Your task to perform on an android device: turn on airplane mode Image 0: 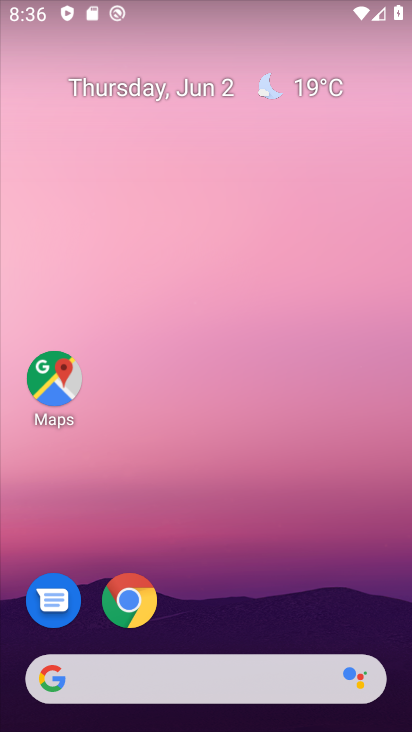
Step 0: drag from (185, 584) to (319, 66)
Your task to perform on an android device: turn on airplane mode Image 1: 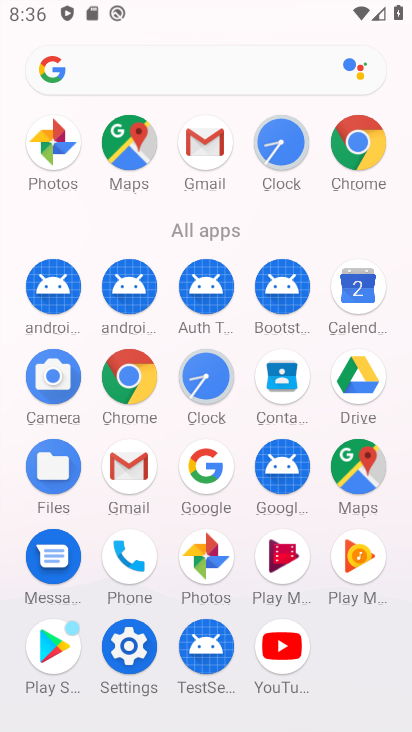
Step 1: drag from (241, 616) to (271, 431)
Your task to perform on an android device: turn on airplane mode Image 2: 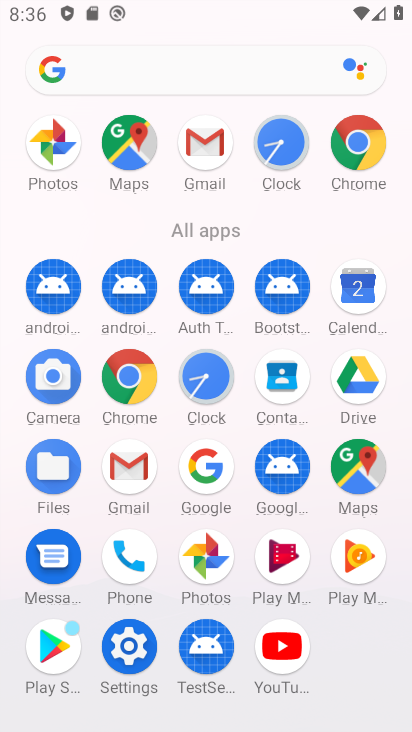
Step 2: click (133, 656)
Your task to perform on an android device: turn on airplane mode Image 3: 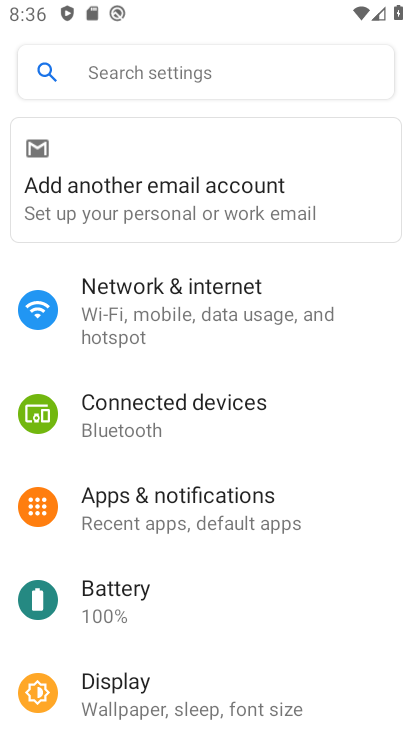
Step 3: click (241, 311)
Your task to perform on an android device: turn on airplane mode Image 4: 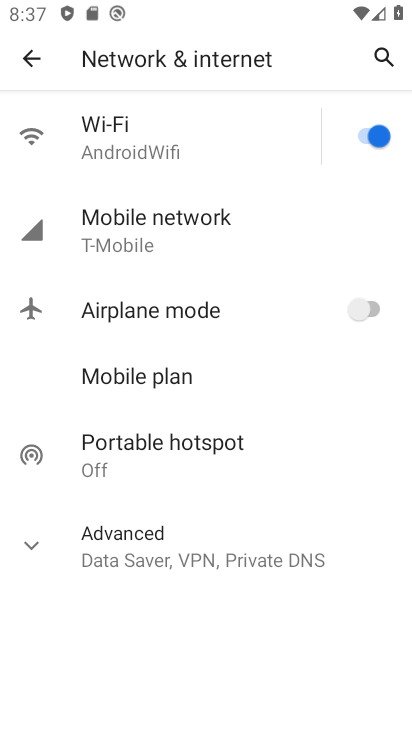
Step 4: click (386, 313)
Your task to perform on an android device: turn on airplane mode Image 5: 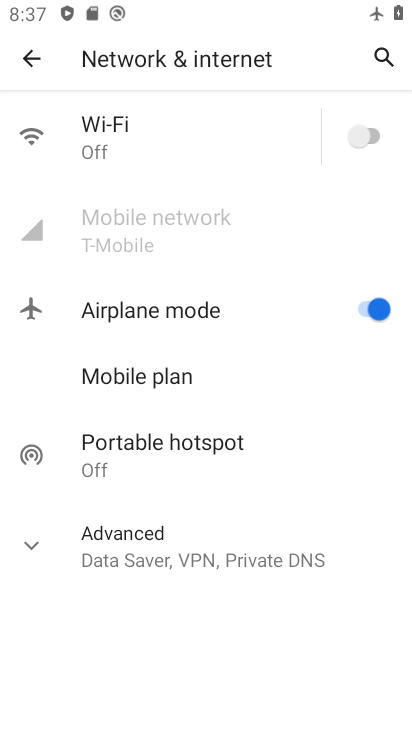
Step 5: task complete